Your task to perform on an android device: Open sound settings Image 0: 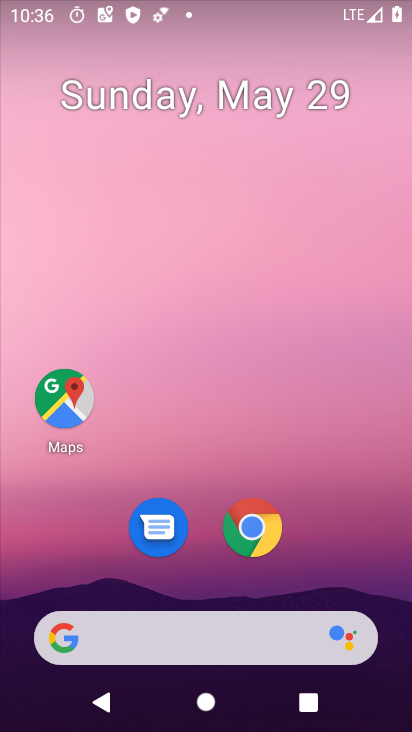
Step 0: drag from (337, 552) to (325, 159)
Your task to perform on an android device: Open sound settings Image 1: 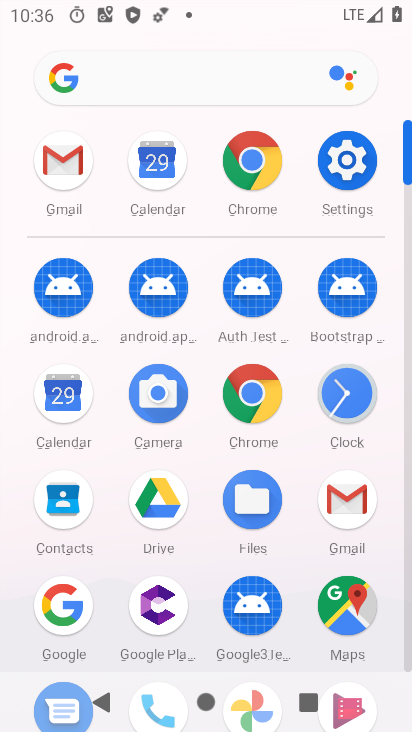
Step 1: click (342, 154)
Your task to perform on an android device: Open sound settings Image 2: 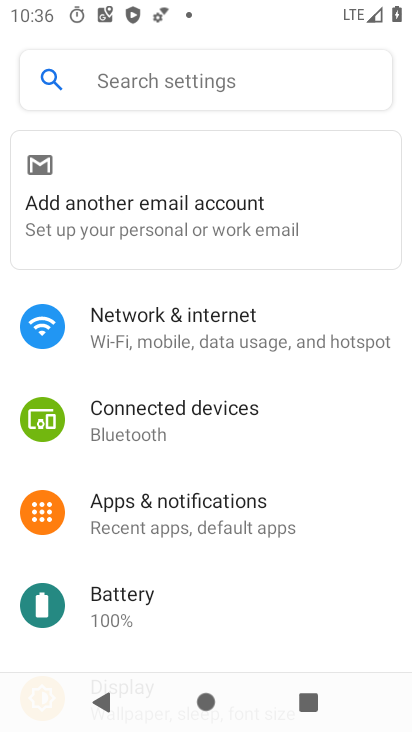
Step 2: drag from (198, 539) to (224, 171)
Your task to perform on an android device: Open sound settings Image 3: 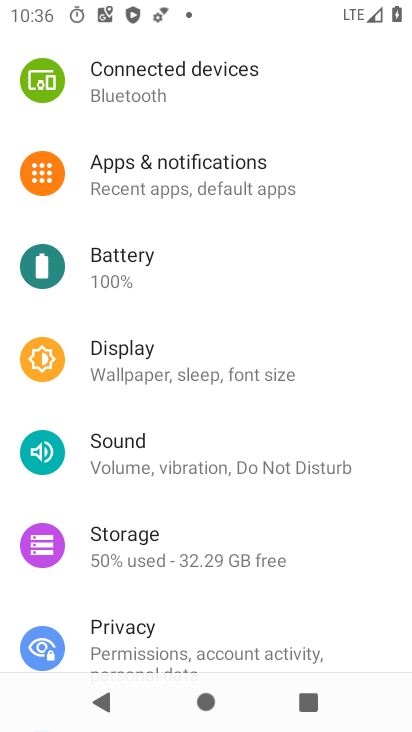
Step 3: click (195, 457)
Your task to perform on an android device: Open sound settings Image 4: 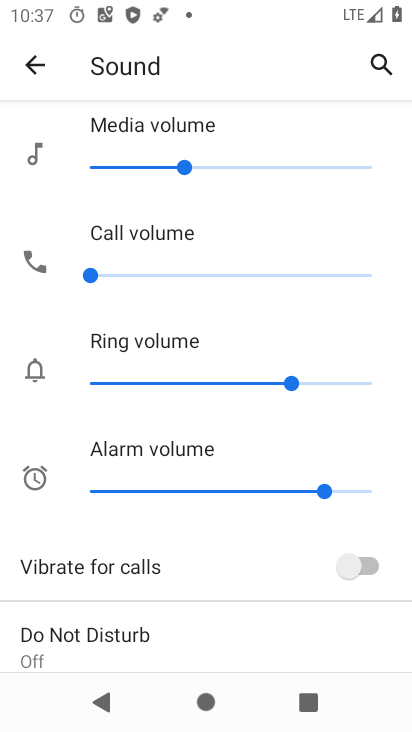
Step 4: task complete